Your task to perform on an android device: all mails in gmail Image 0: 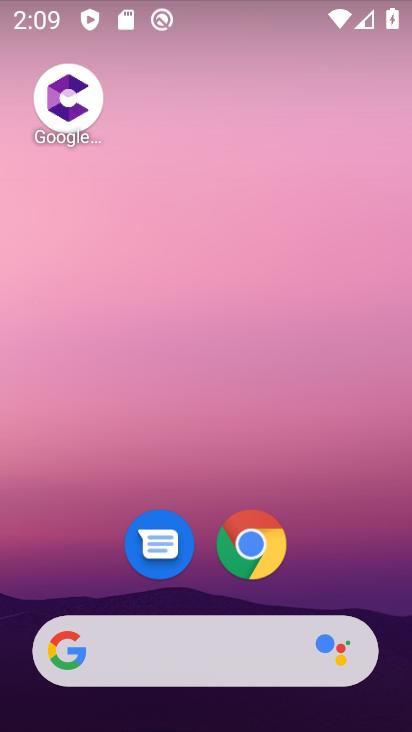
Step 0: drag from (356, 549) to (357, 134)
Your task to perform on an android device: all mails in gmail Image 1: 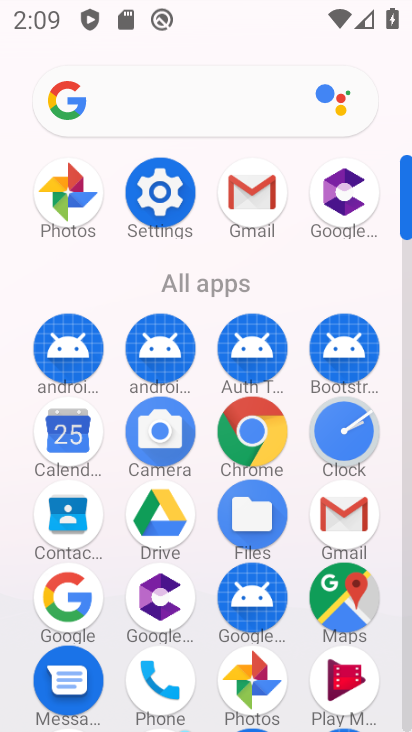
Step 1: click (323, 515)
Your task to perform on an android device: all mails in gmail Image 2: 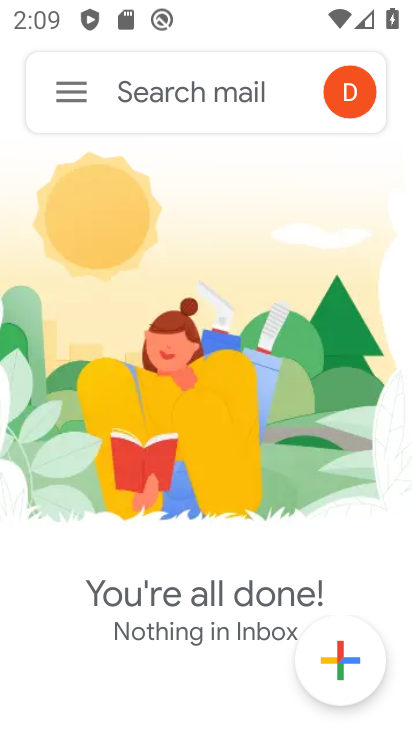
Step 2: click (69, 105)
Your task to perform on an android device: all mails in gmail Image 3: 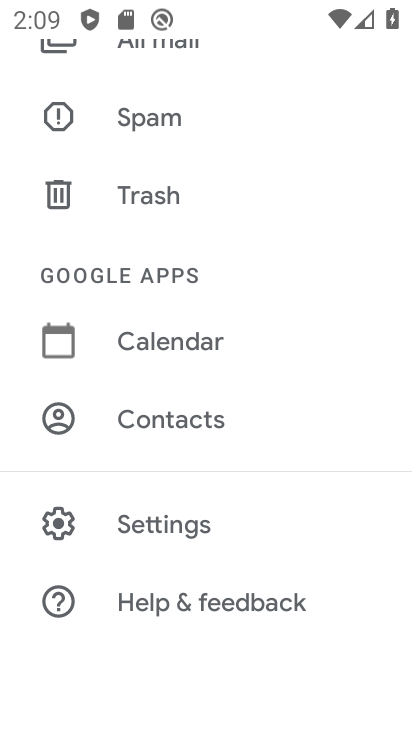
Step 3: drag from (220, 169) to (148, 550)
Your task to perform on an android device: all mails in gmail Image 4: 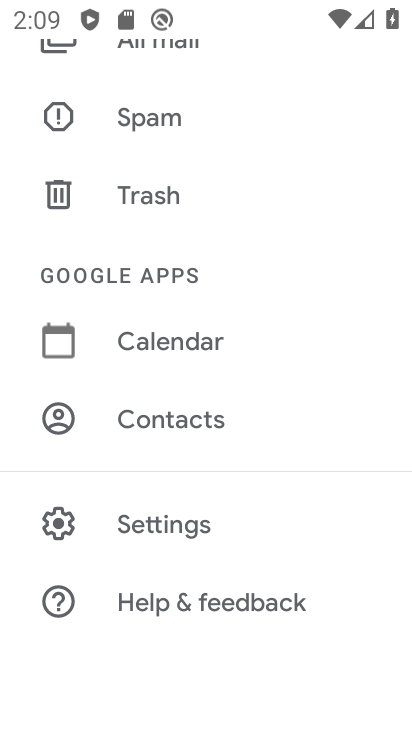
Step 4: drag from (127, 140) to (240, 460)
Your task to perform on an android device: all mails in gmail Image 5: 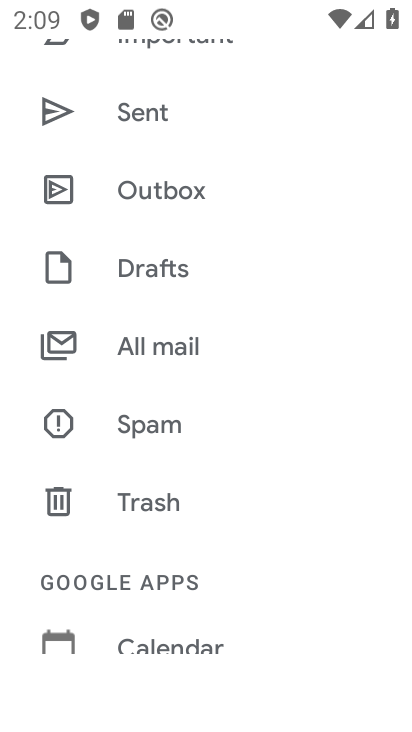
Step 5: click (218, 357)
Your task to perform on an android device: all mails in gmail Image 6: 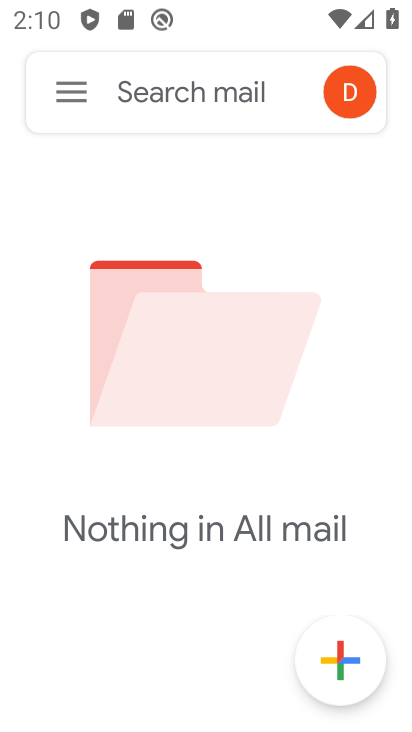
Step 6: task complete